Your task to perform on an android device: Open internet settings Image 0: 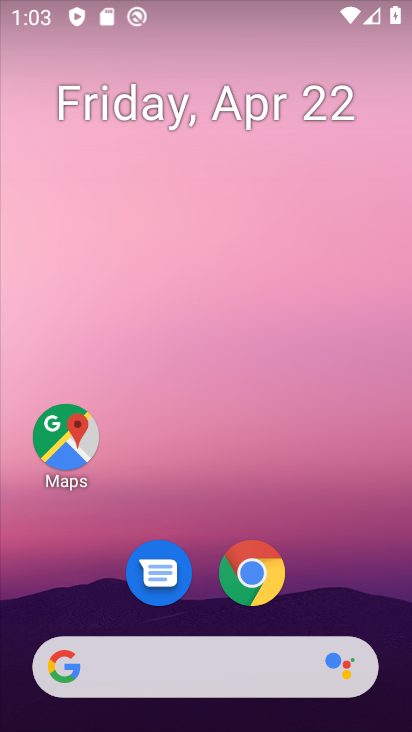
Step 0: drag from (332, 586) to (323, 121)
Your task to perform on an android device: Open internet settings Image 1: 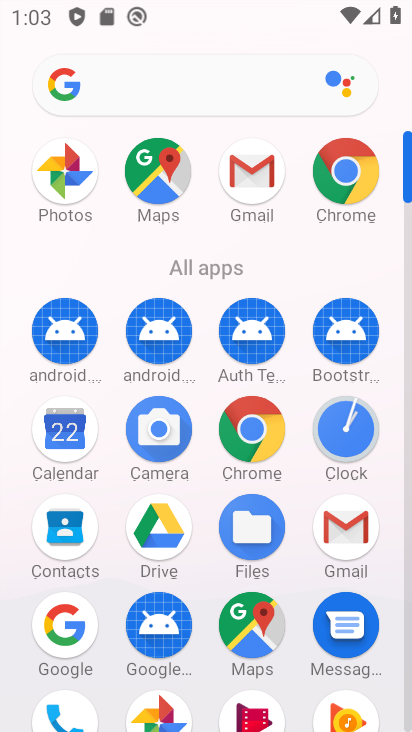
Step 1: drag from (300, 607) to (313, 263)
Your task to perform on an android device: Open internet settings Image 2: 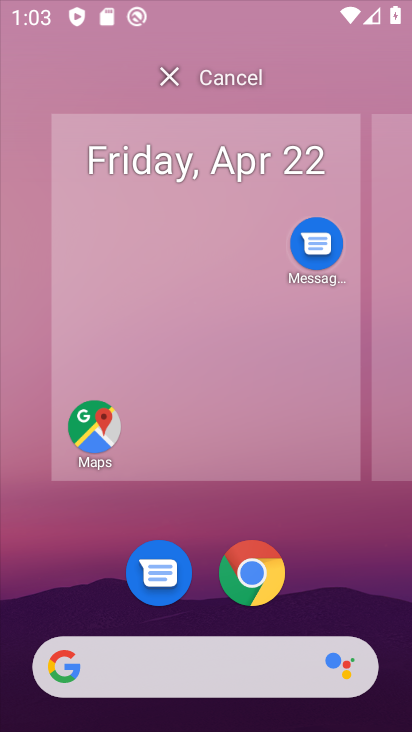
Step 2: drag from (292, 572) to (303, 195)
Your task to perform on an android device: Open internet settings Image 3: 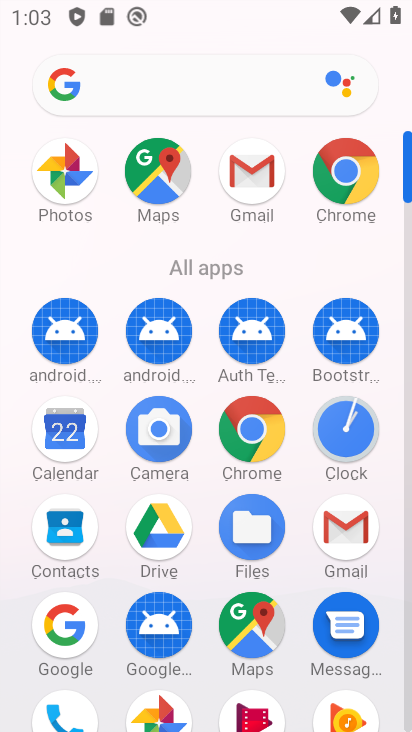
Step 3: drag from (301, 667) to (308, 244)
Your task to perform on an android device: Open internet settings Image 4: 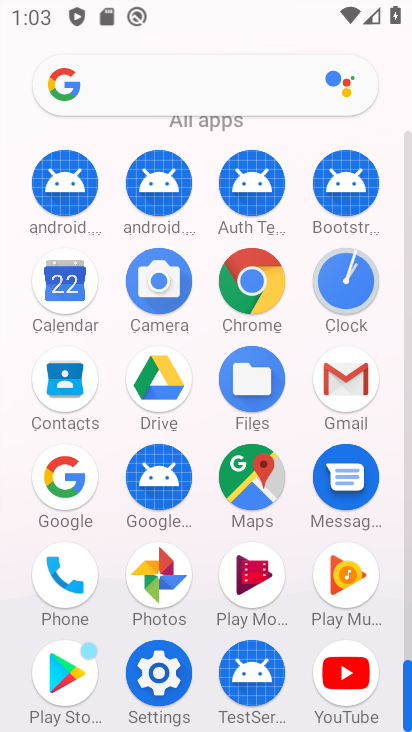
Step 4: click (150, 666)
Your task to perform on an android device: Open internet settings Image 5: 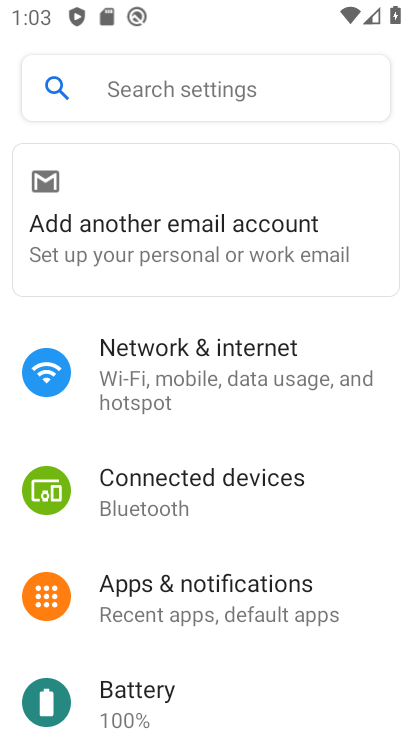
Step 5: click (227, 379)
Your task to perform on an android device: Open internet settings Image 6: 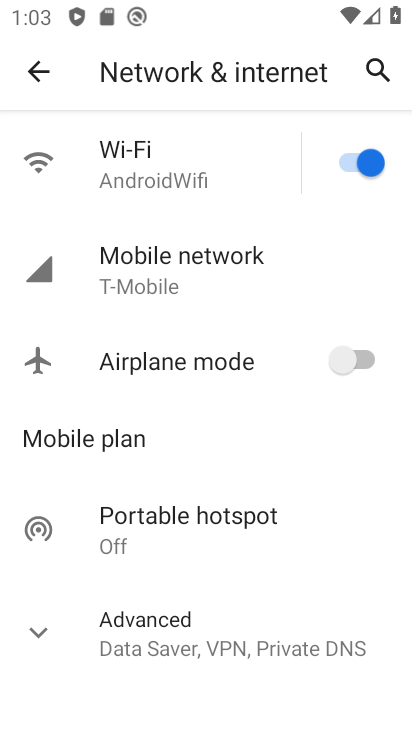
Step 6: task complete